Your task to perform on an android device: open app "Booking.com: Hotels and more" Image 0: 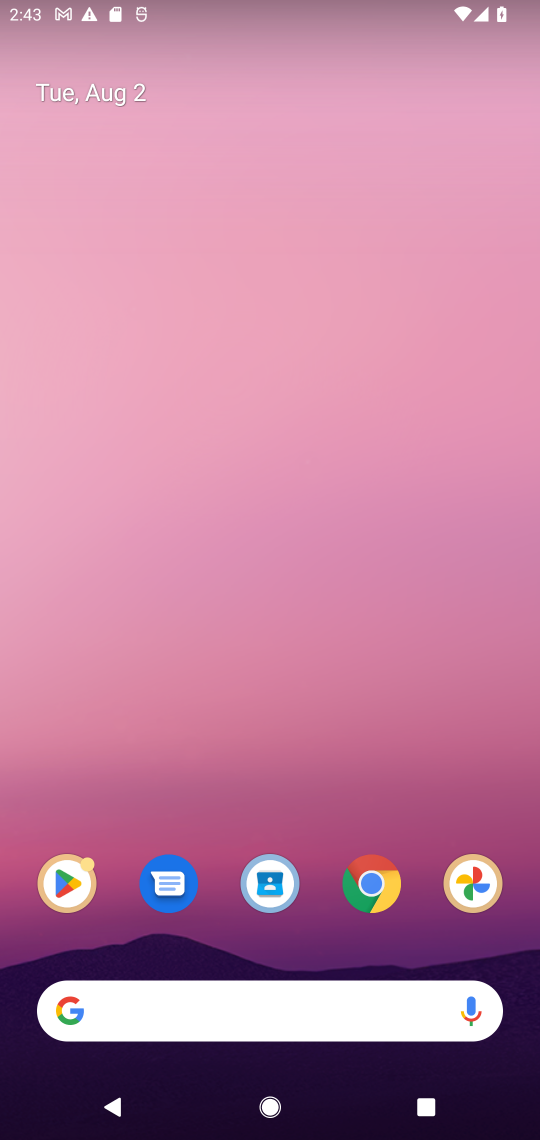
Step 0: click (67, 892)
Your task to perform on an android device: open app "Booking.com: Hotels and more" Image 1: 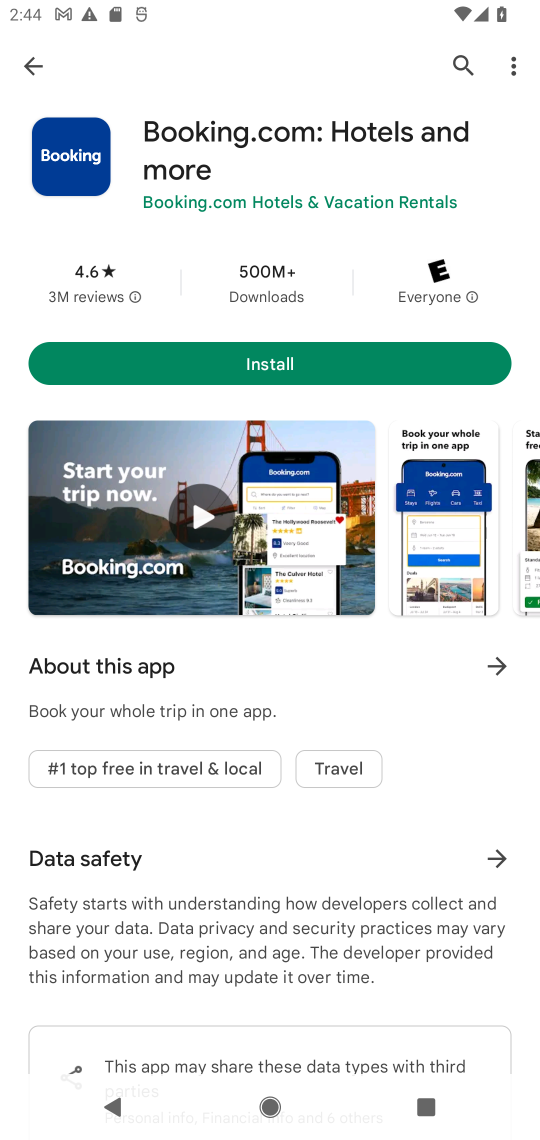
Step 1: task complete